Your task to perform on an android device: toggle airplane mode Image 0: 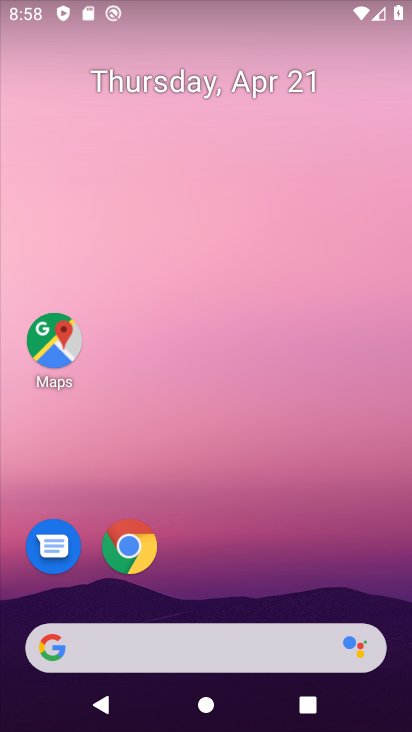
Step 0: drag from (150, 647) to (146, 82)
Your task to perform on an android device: toggle airplane mode Image 1: 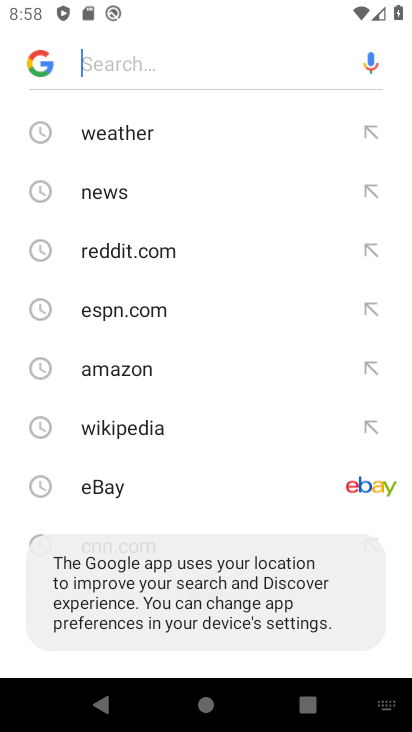
Step 1: press home button
Your task to perform on an android device: toggle airplane mode Image 2: 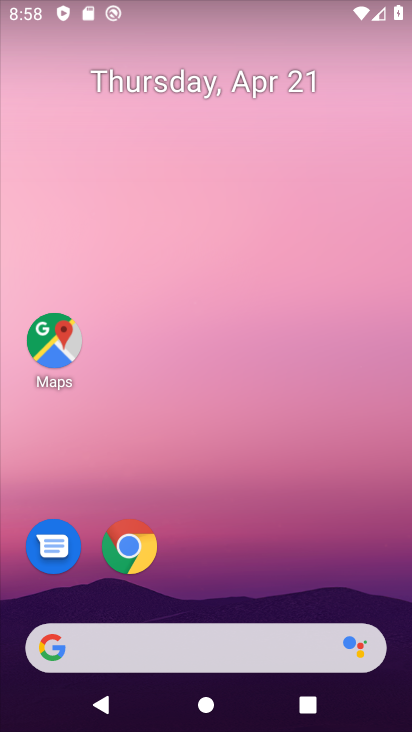
Step 2: drag from (253, 631) to (213, 285)
Your task to perform on an android device: toggle airplane mode Image 3: 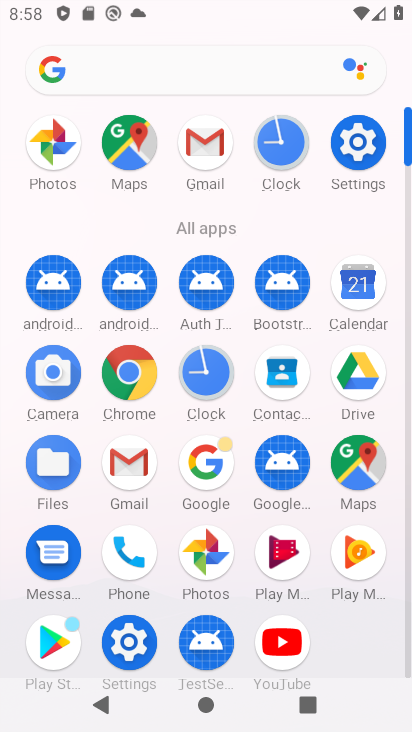
Step 3: click (363, 164)
Your task to perform on an android device: toggle airplane mode Image 4: 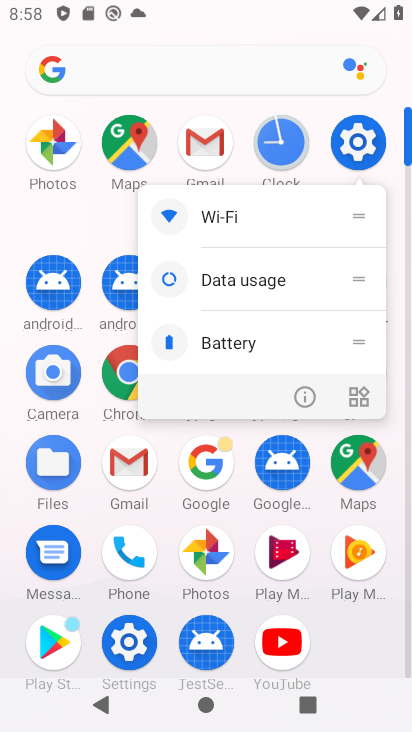
Step 4: click (363, 164)
Your task to perform on an android device: toggle airplane mode Image 5: 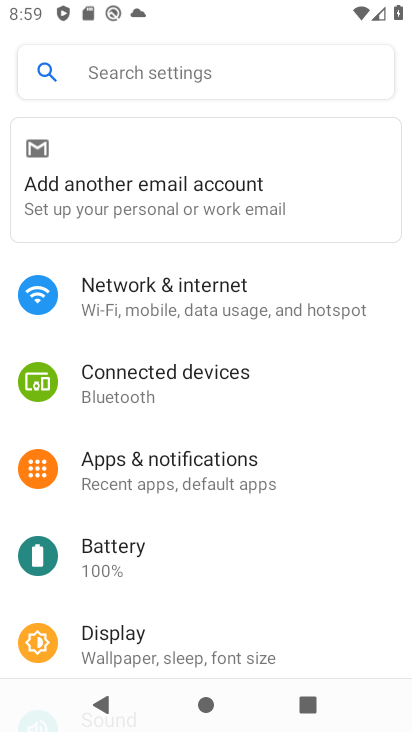
Step 5: click (184, 301)
Your task to perform on an android device: toggle airplane mode Image 6: 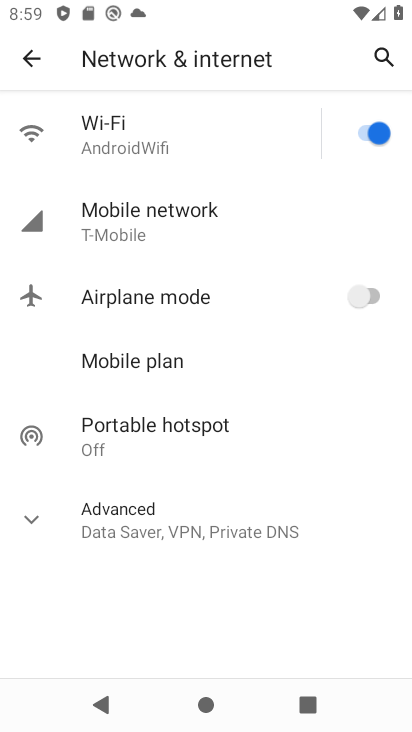
Step 6: click (364, 294)
Your task to perform on an android device: toggle airplane mode Image 7: 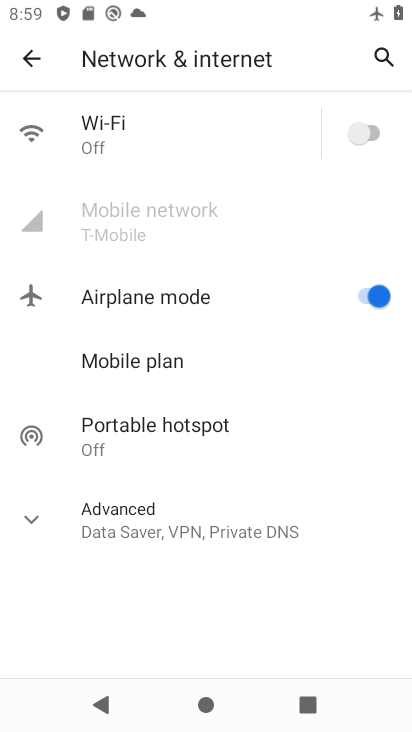
Step 7: task complete